Your task to perform on an android device: Open the web browser Image 0: 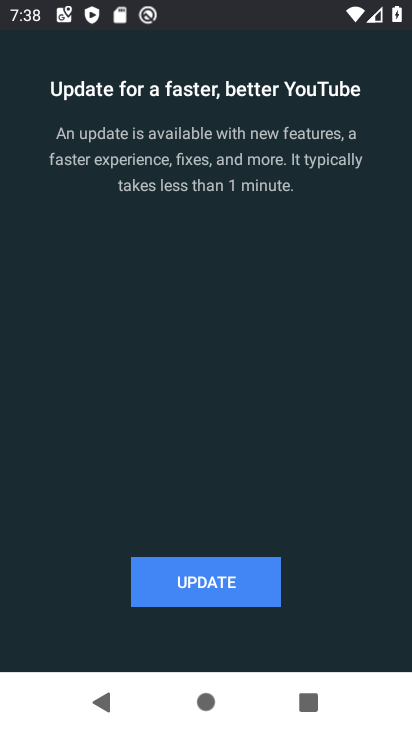
Step 0: press home button
Your task to perform on an android device: Open the web browser Image 1: 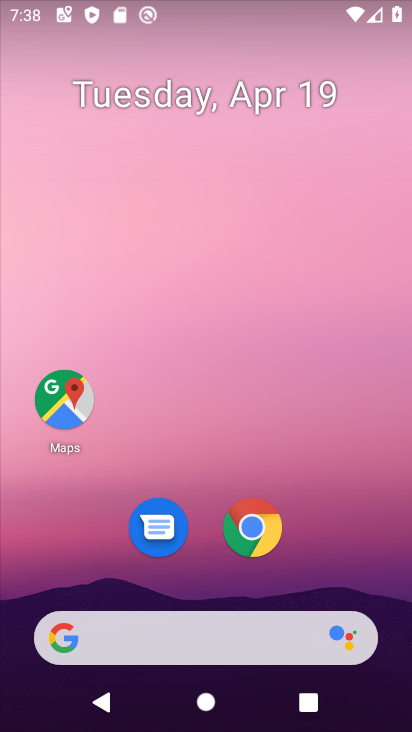
Step 1: click (261, 525)
Your task to perform on an android device: Open the web browser Image 2: 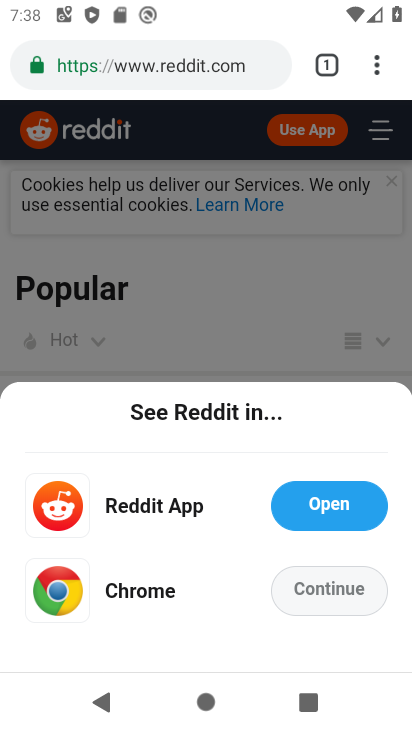
Step 2: click (325, 63)
Your task to perform on an android device: Open the web browser Image 3: 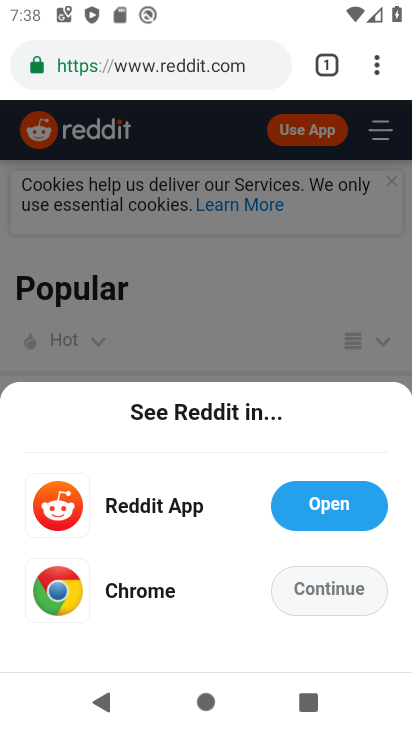
Step 3: click (328, 65)
Your task to perform on an android device: Open the web browser Image 4: 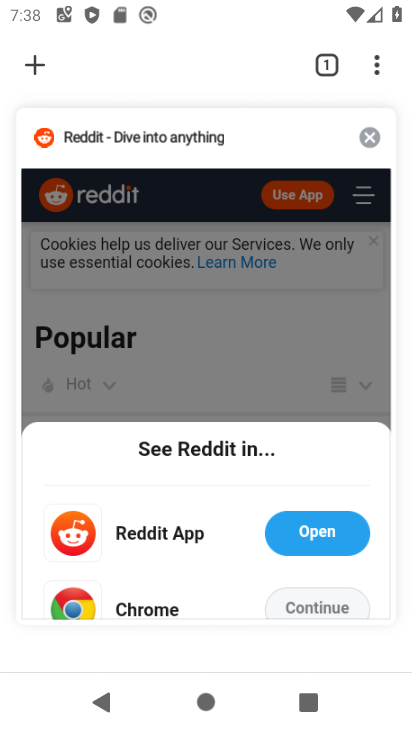
Step 4: click (31, 61)
Your task to perform on an android device: Open the web browser Image 5: 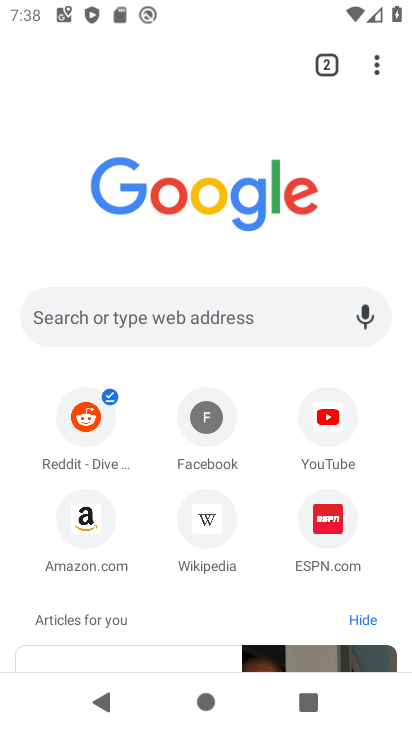
Step 5: task complete